Your task to perform on an android device: change the clock display to show seconds Image 0: 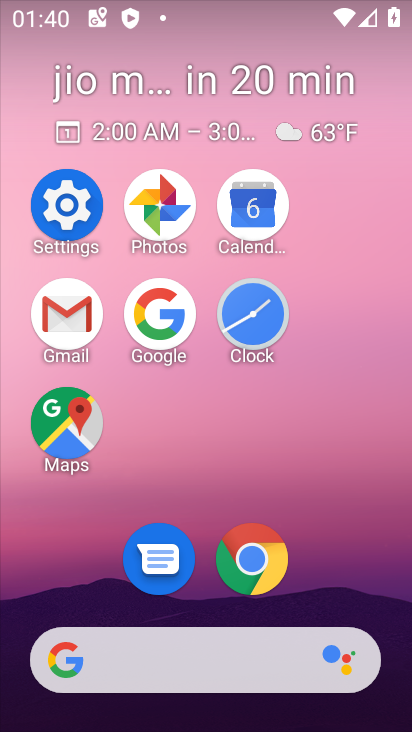
Step 0: click (252, 306)
Your task to perform on an android device: change the clock display to show seconds Image 1: 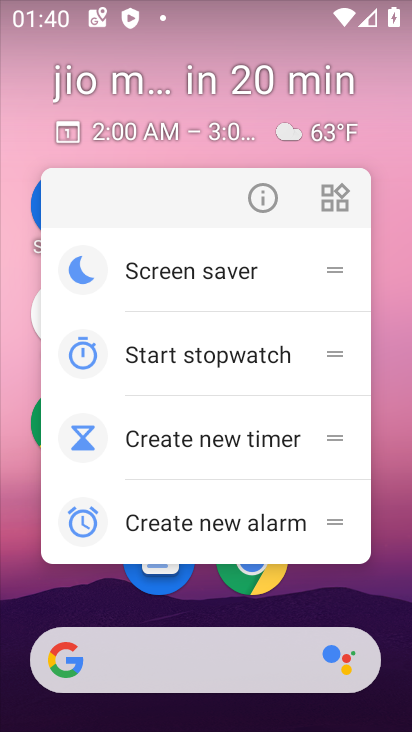
Step 1: click (391, 333)
Your task to perform on an android device: change the clock display to show seconds Image 2: 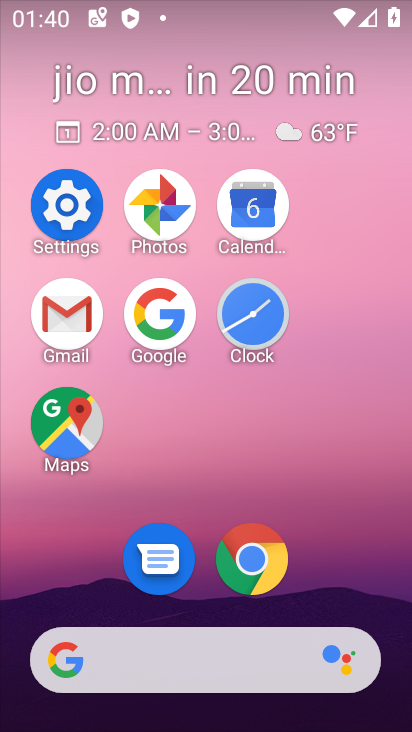
Step 2: click (274, 337)
Your task to perform on an android device: change the clock display to show seconds Image 3: 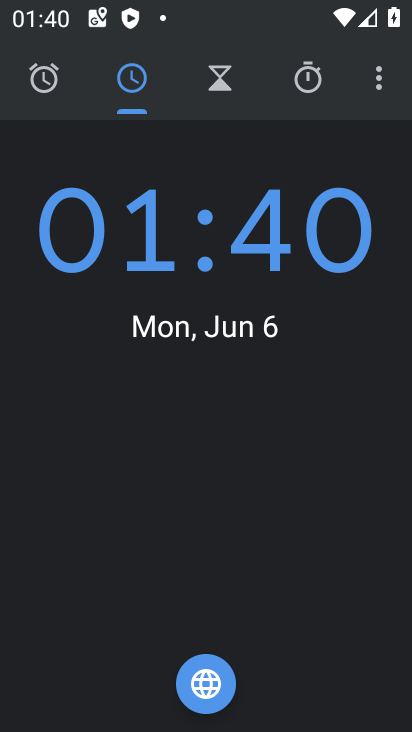
Step 3: click (382, 77)
Your task to perform on an android device: change the clock display to show seconds Image 4: 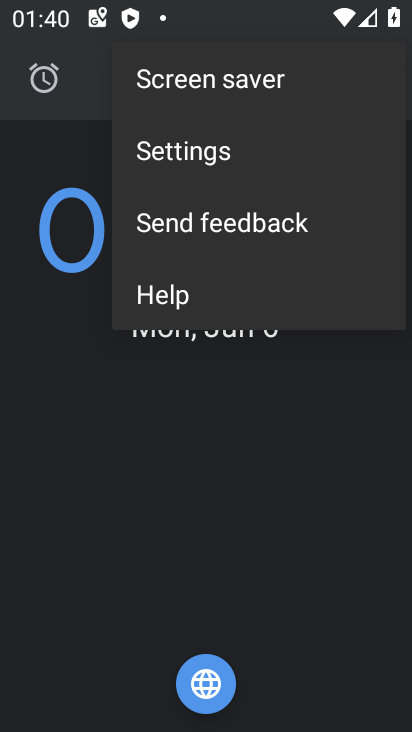
Step 4: click (283, 151)
Your task to perform on an android device: change the clock display to show seconds Image 5: 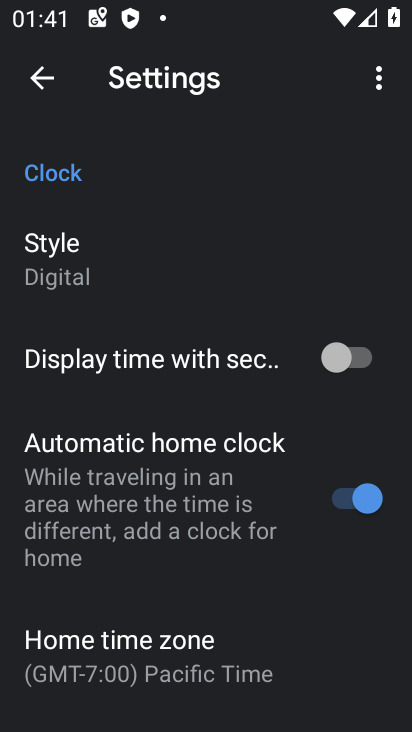
Step 5: click (324, 360)
Your task to perform on an android device: change the clock display to show seconds Image 6: 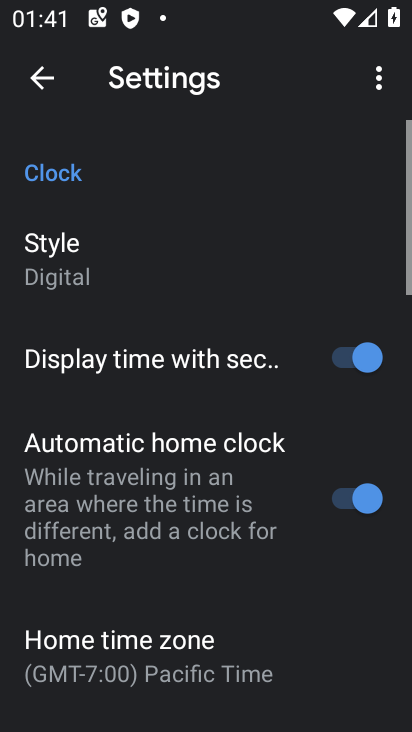
Step 6: task complete